Your task to perform on an android device: Open Chrome and go to settings Image 0: 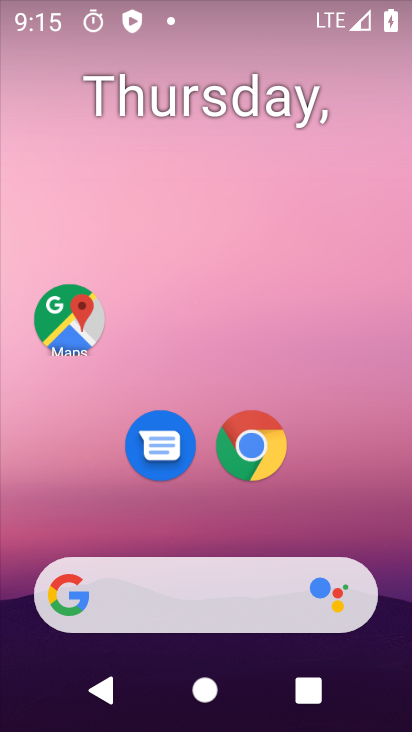
Step 0: click (262, 456)
Your task to perform on an android device: Open Chrome and go to settings Image 1: 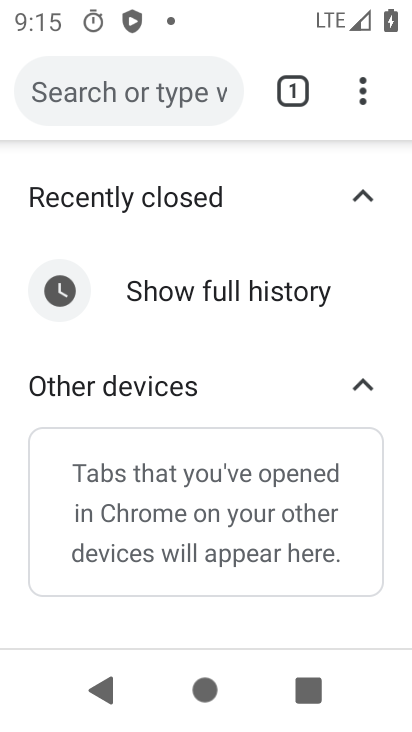
Step 1: click (365, 99)
Your task to perform on an android device: Open Chrome and go to settings Image 2: 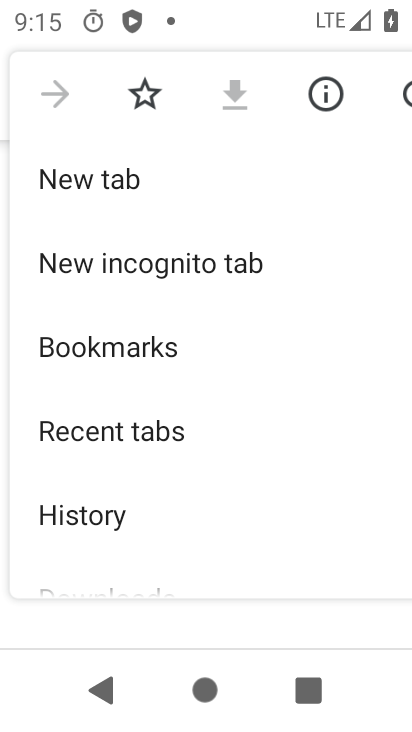
Step 2: drag from (362, 521) to (336, 66)
Your task to perform on an android device: Open Chrome and go to settings Image 3: 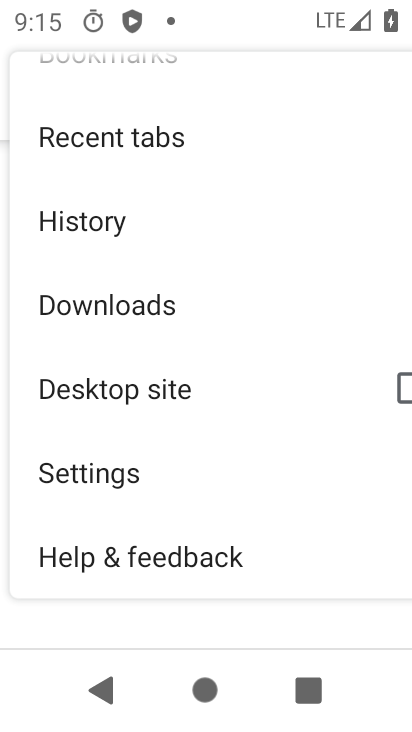
Step 3: click (90, 483)
Your task to perform on an android device: Open Chrome and go to settings Image 4: 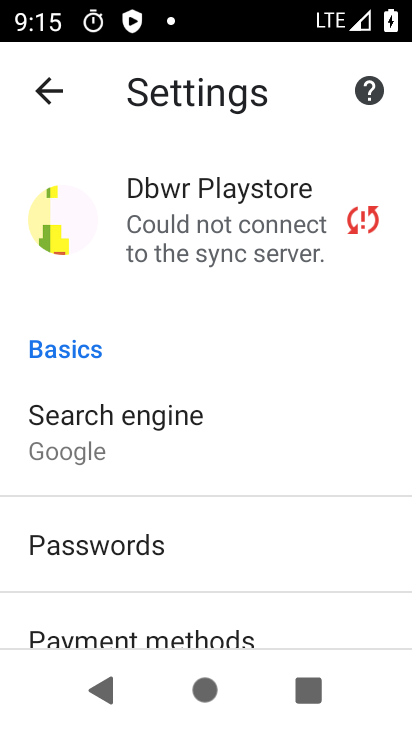
Step 4: task complete